Your task to perform on an android device: open app "Google Translate" Image 0: 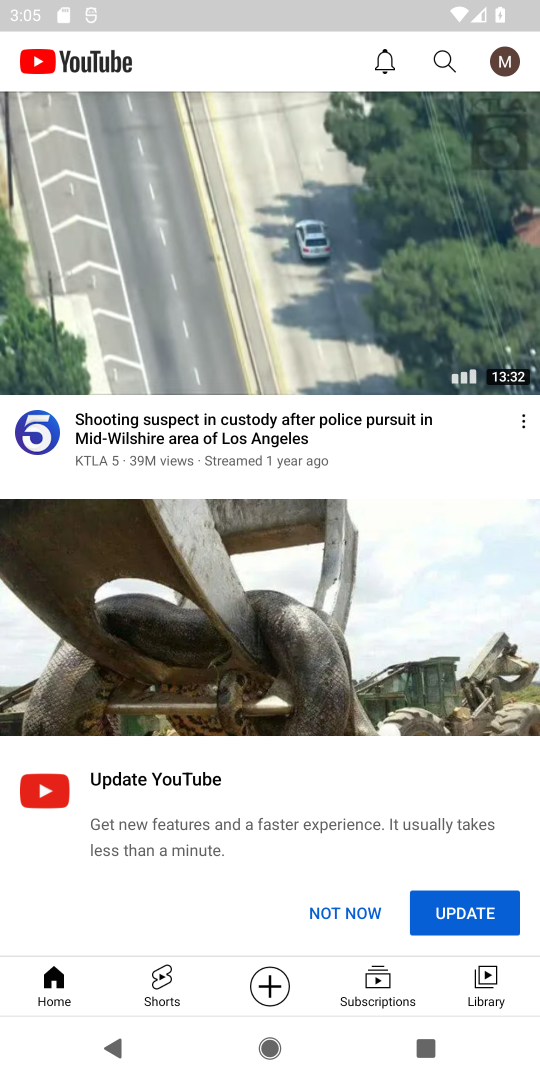
Step 0: press home button
Your task to perform on an android device: open app "Google Translate" Image 1: 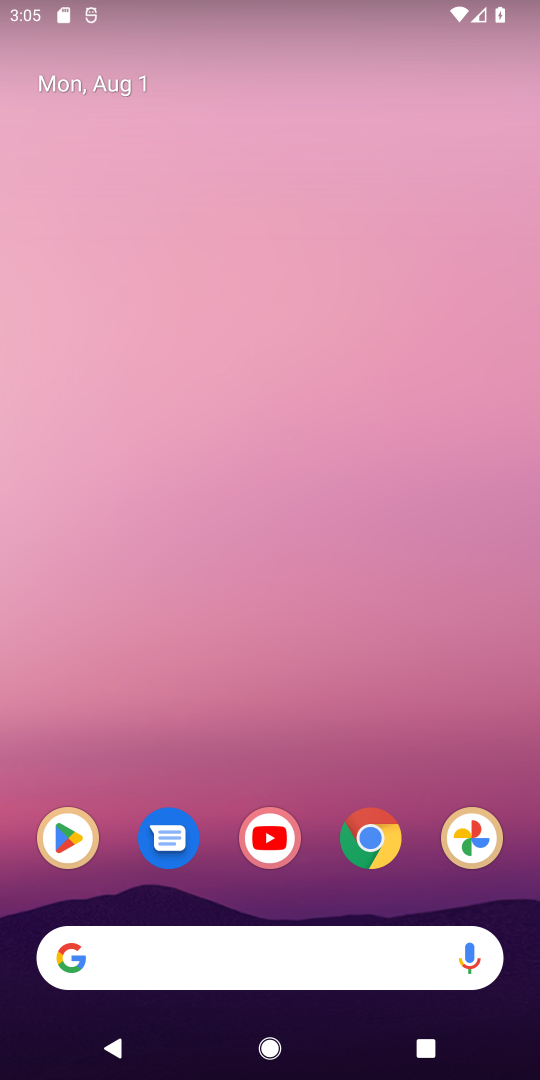
Step 1: click (82, 850)
Your task to perform on an android device: open app "Google Translate" Image 2: 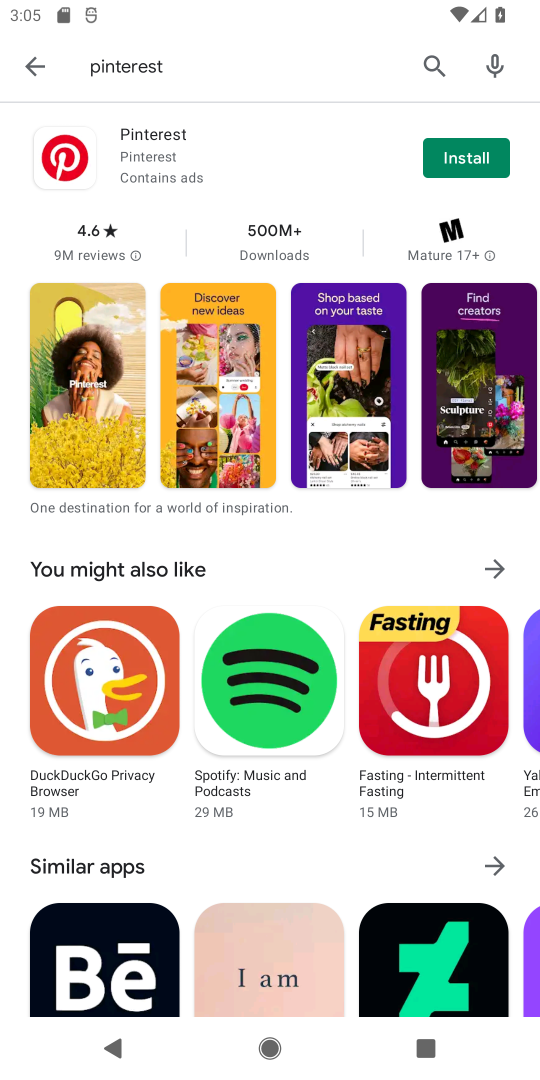
Step 2: click (410, 61)
Your task to perform on an android device: open app "Google Translate" Image 3: 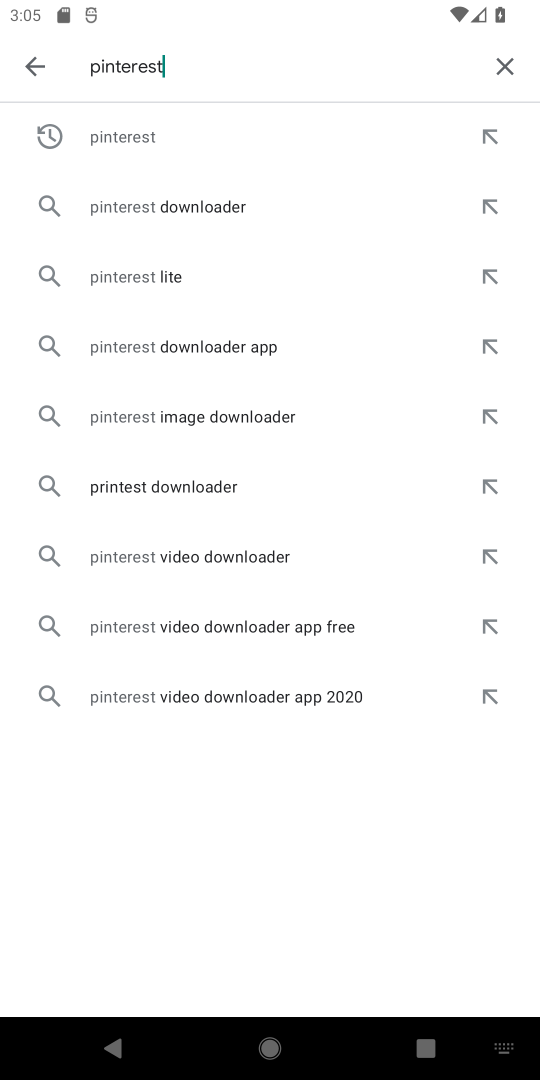
Step 3: click (484, 56)
Your task to perform on an android device: open app "Google Translate" Image 4: 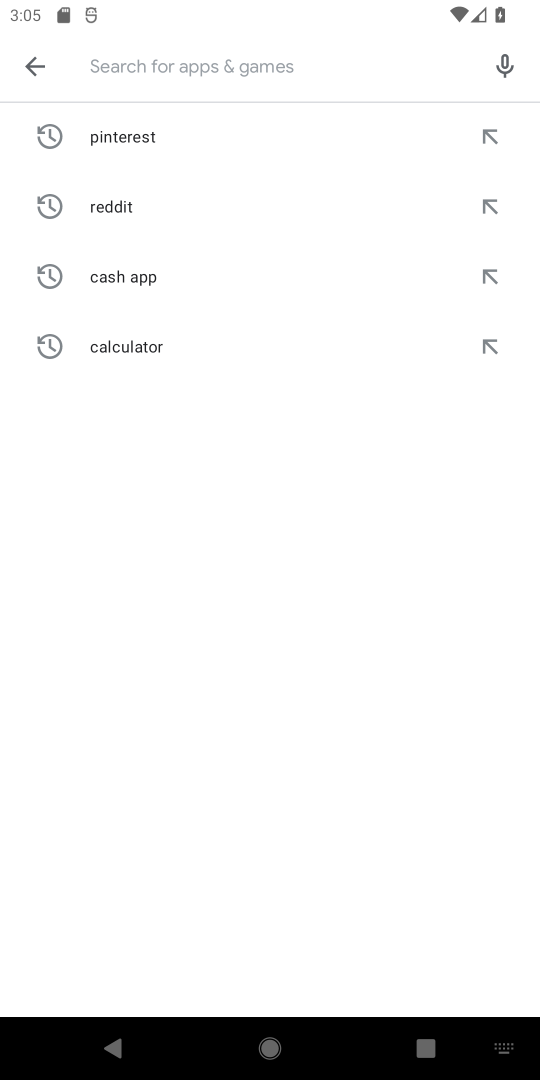
Step 4: type "Google Translate"
Your task to perform on an android device: open app "Google Translate" Image 5: 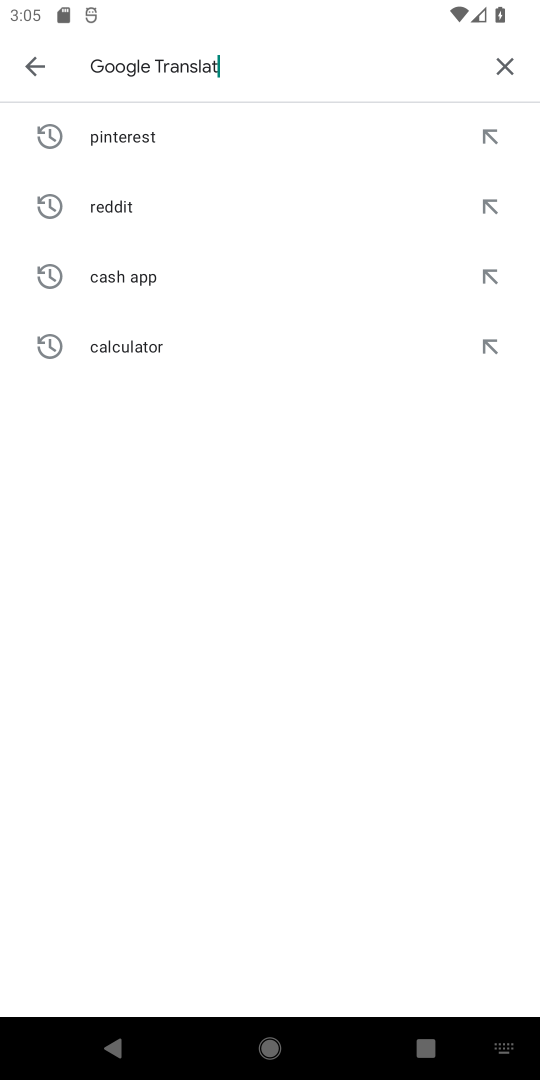
Step 5: type ""
Your task to perform on an android device: open app "Google Translate" Image 6: 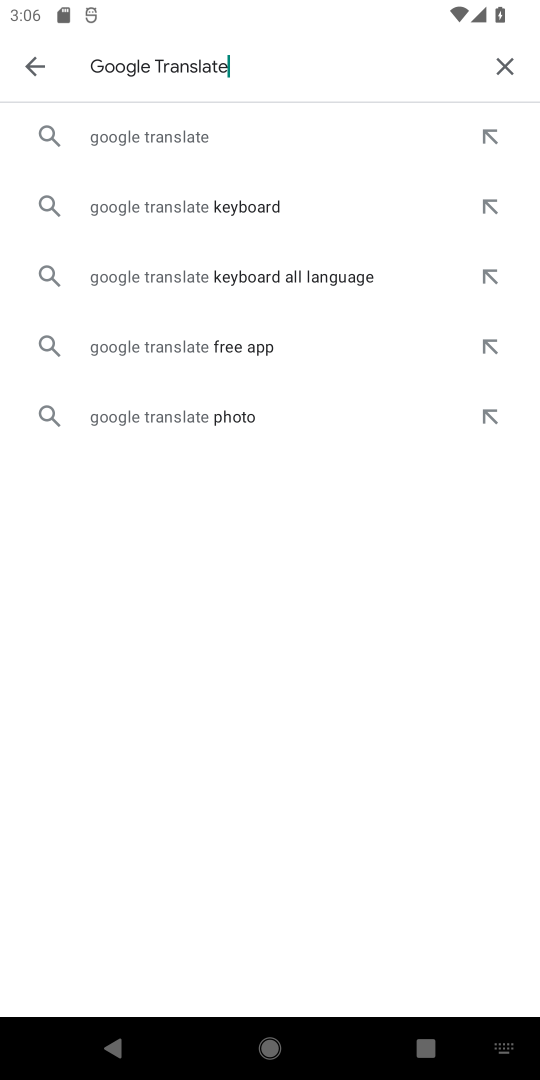
Step 6: click (196, 147)
Your task to perform on an android device: open app "Google Translate" Image 7: 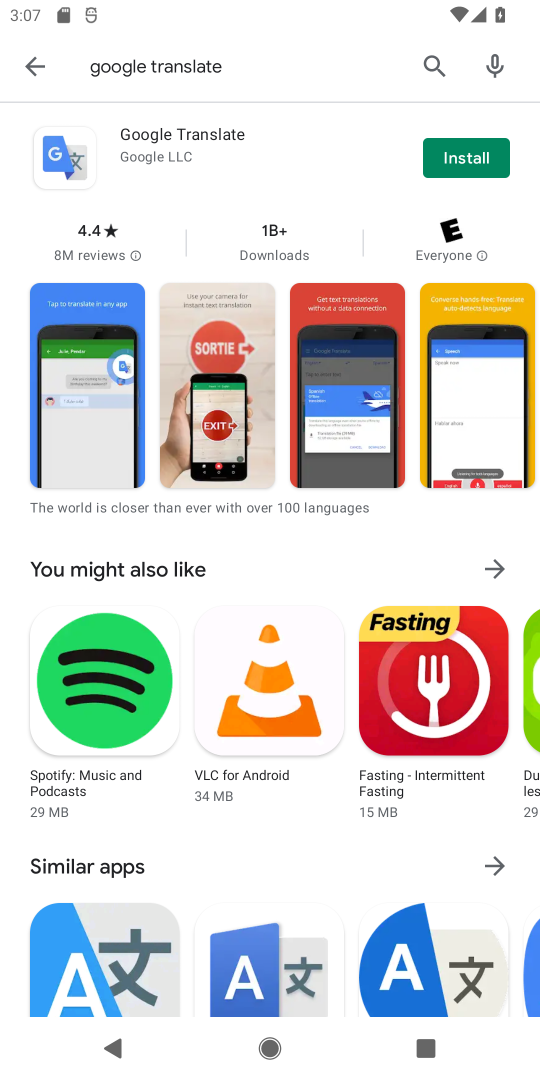
Step 7: click (323, 186)
Your task to perform on an android device: open app "Google Translate" Image 8: 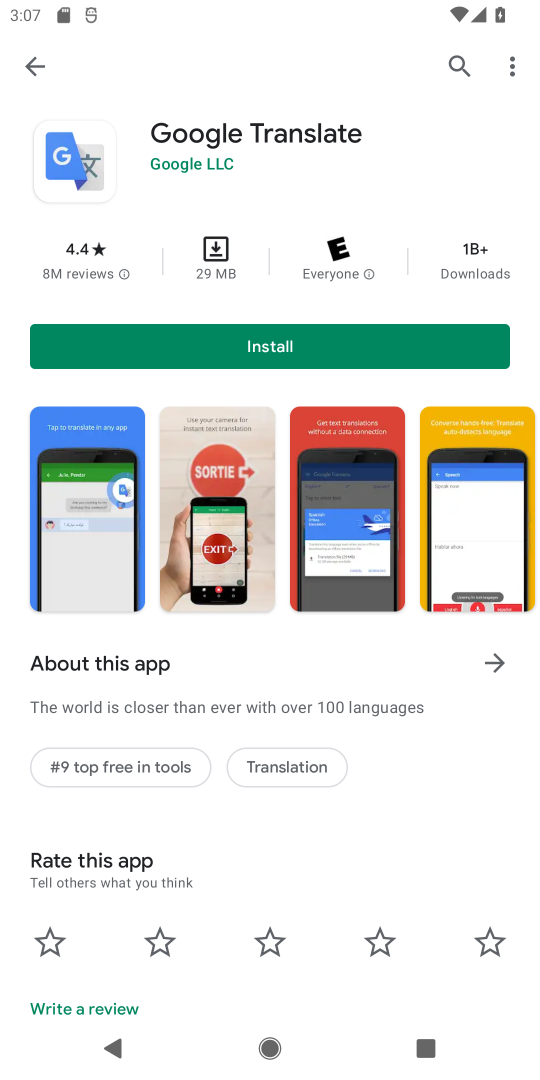
Step 8: task complete